Your task to perform on an android device: turn pop-ups on in chrome Image 0: 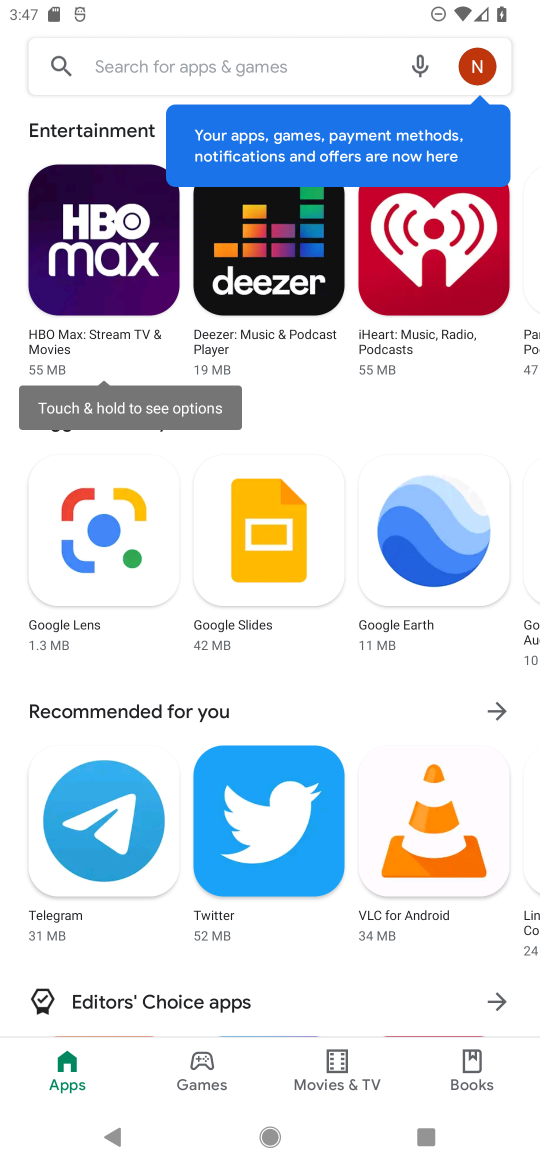
Step 0: press home button
Your task to perform on an android device: turn pop-ups on in chrome Image 1: 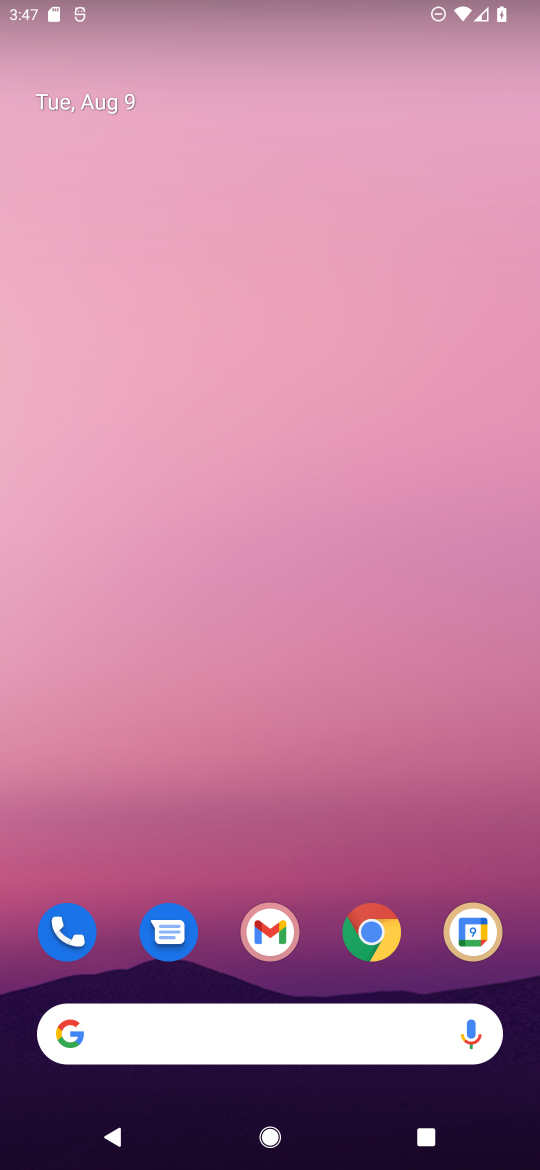
Step 1: click (360, 918)
Your task to perform on an android device: turn pop-ups on in chrome Image 2: 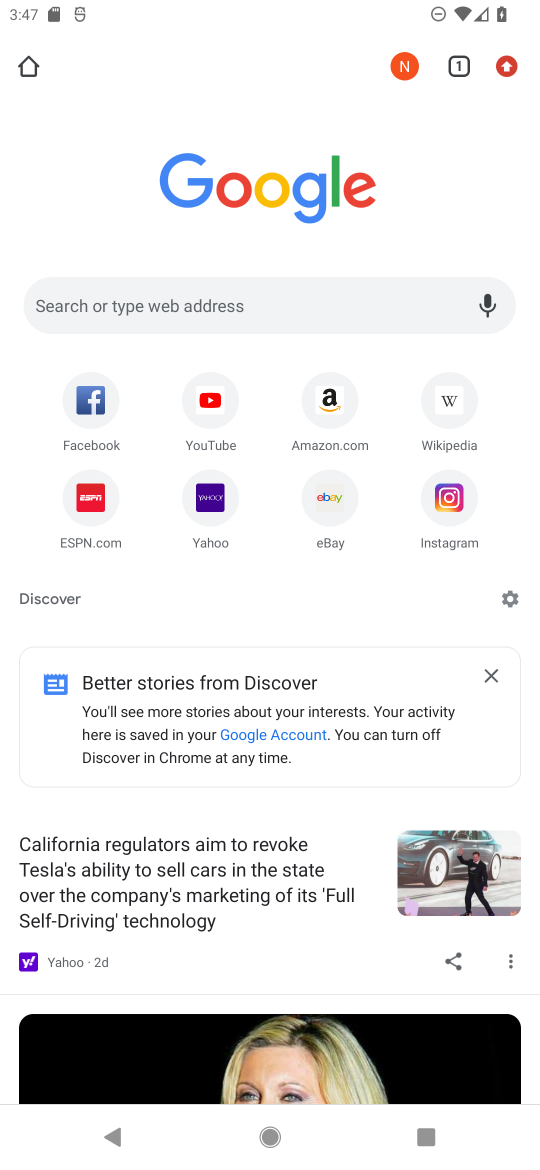
Step 2: click (495, 61)
Your task to perform on an android device: turn pop-ups on in chrome Image 3: 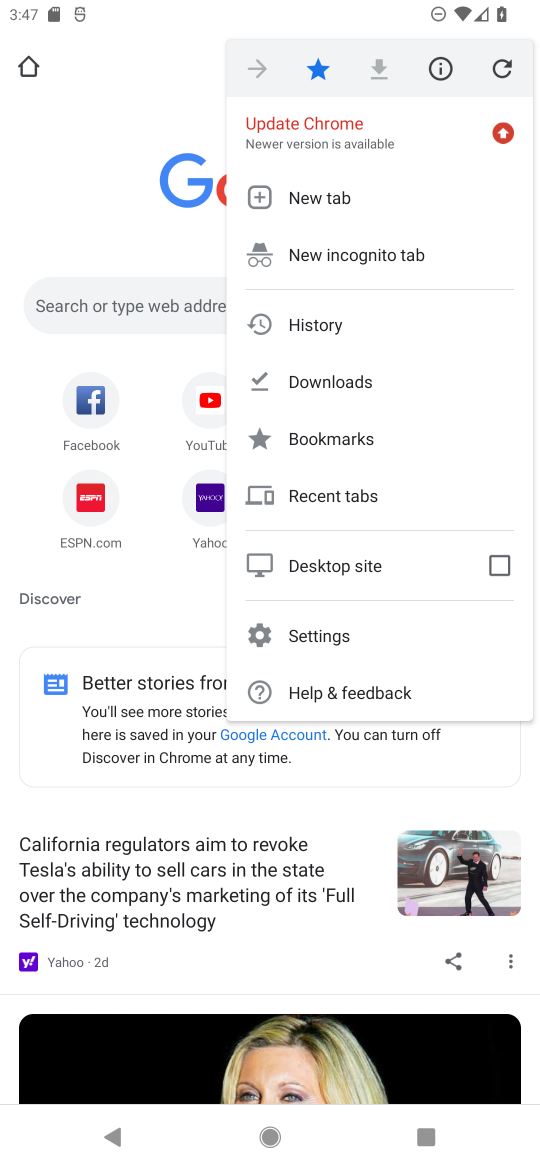
Step 3: click (317, 643)
Your task to perform on an android device: turn pop-ups on in chrome Image 4: 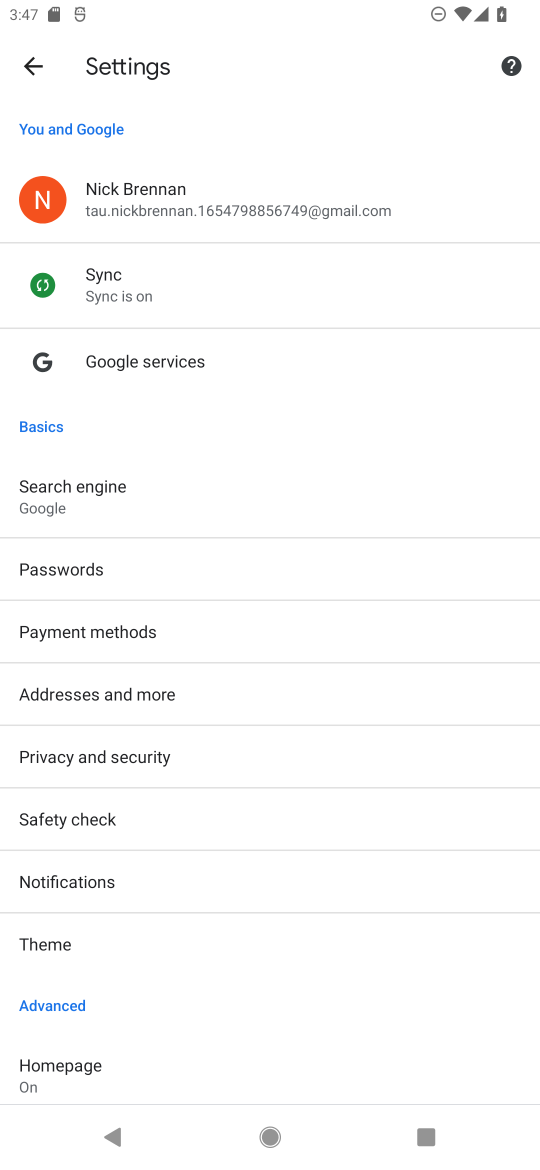
Step 4: drag from (343, 959) to (257, 424)
Your task to perform on an android device: turn pop-ups on in chrome Image 5: 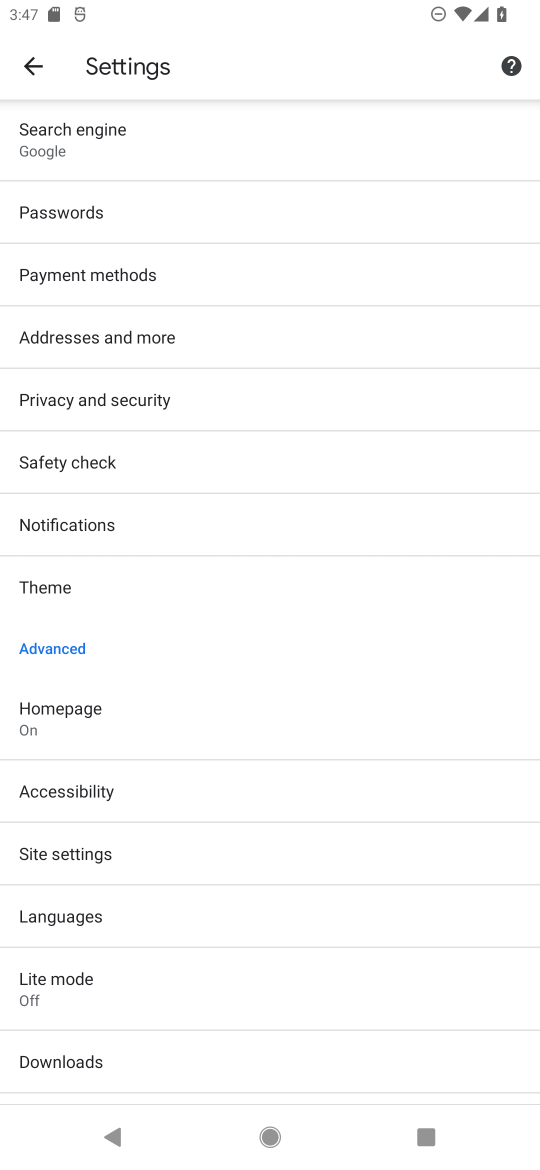
Step 5: click (69, 860)
Your task to perform on an android device: turn pop-ups on in chrome Image 6: 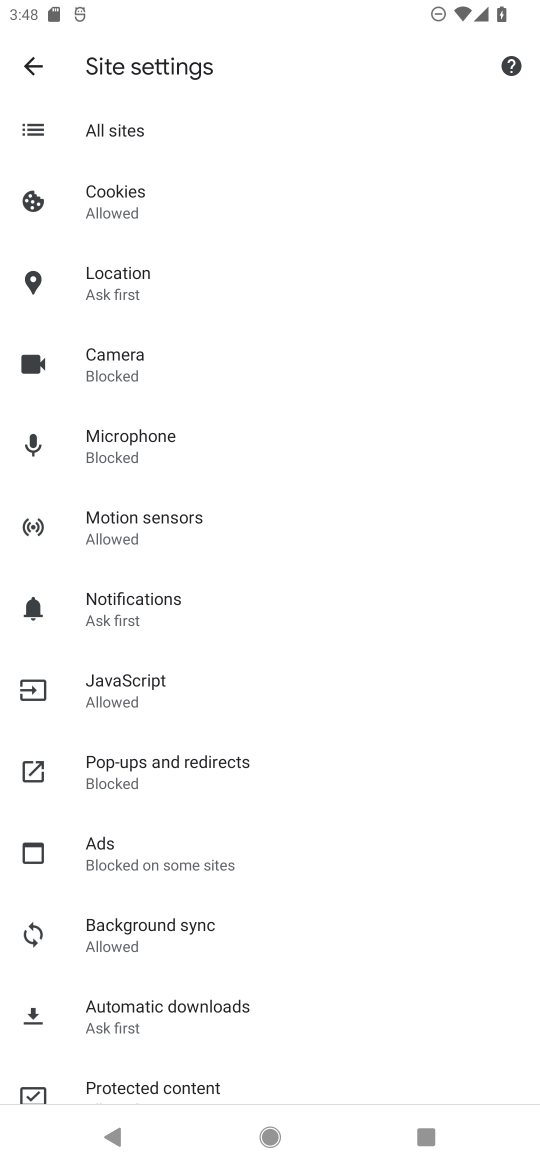
Step 6: click (150, 762)
Your task to perform on an android device: turn pop-ups on in chrome Image 7: 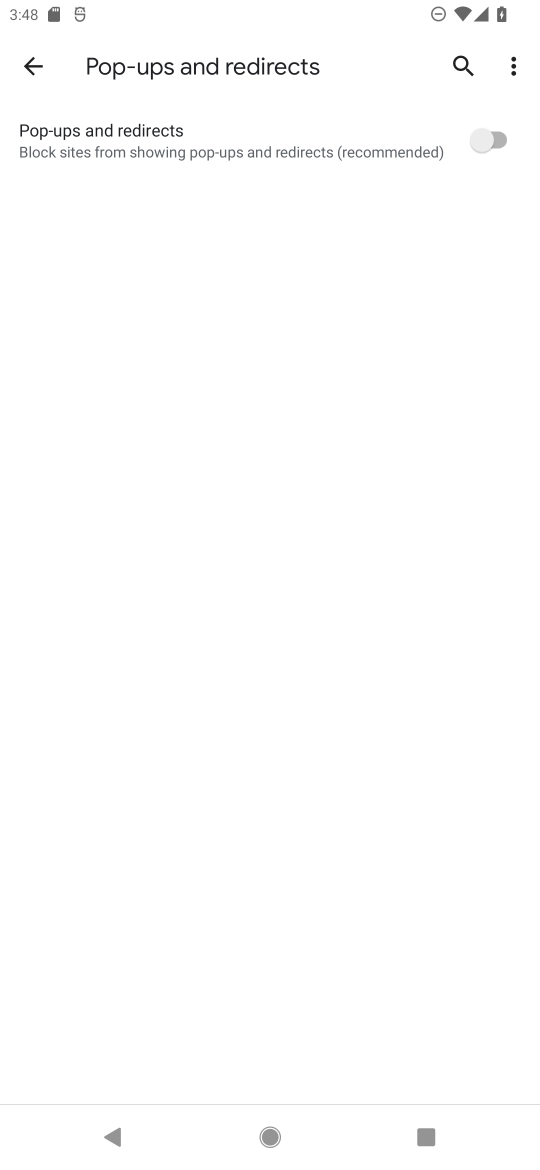
Step 7: click (488, 131)
Your task to perform on an android device: turn pop-ups on in chrome Image 8: 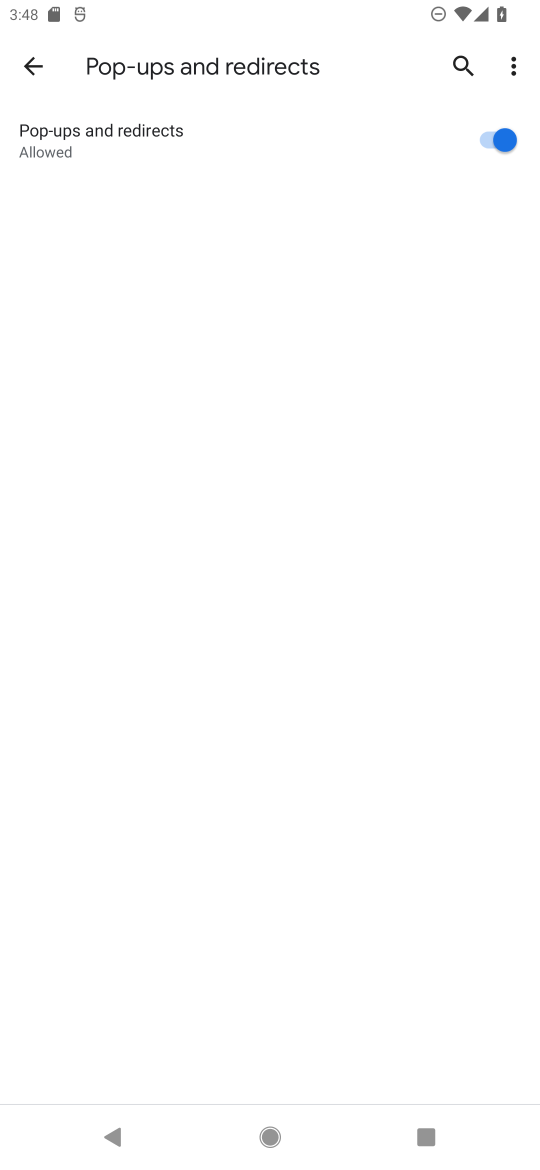
Step 8: task complete